Your task to perform on an android device: open device folders in google photos Image 0: 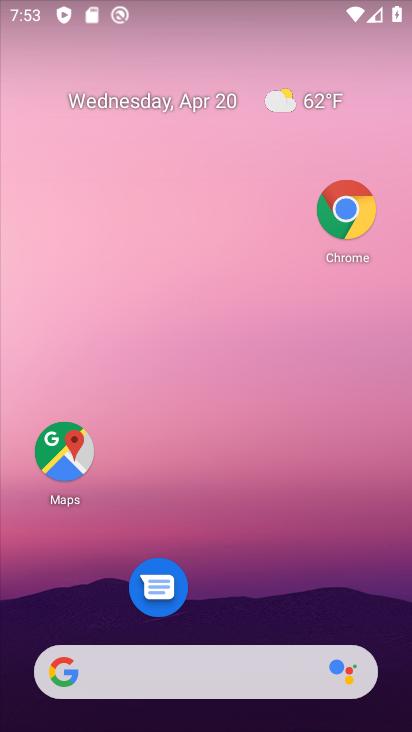
Step 0: drag from (253, 625) to (116, 98)
Your task to perform on an android device: open device folders in google photos Image 1: 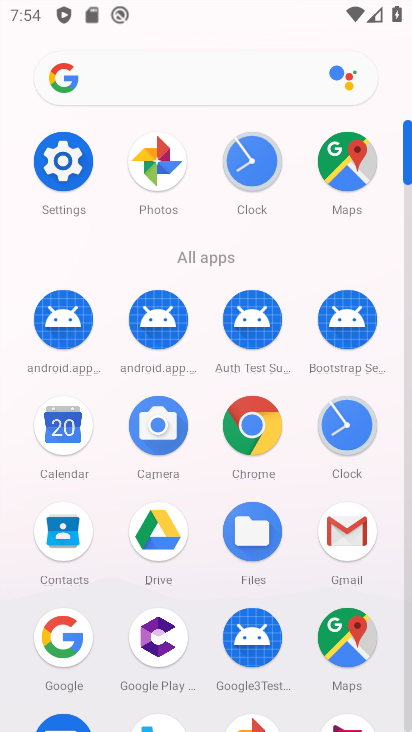
Step 1: click (177, 148)
Your task to perform on an android device: open device folders in google photos Image 2: 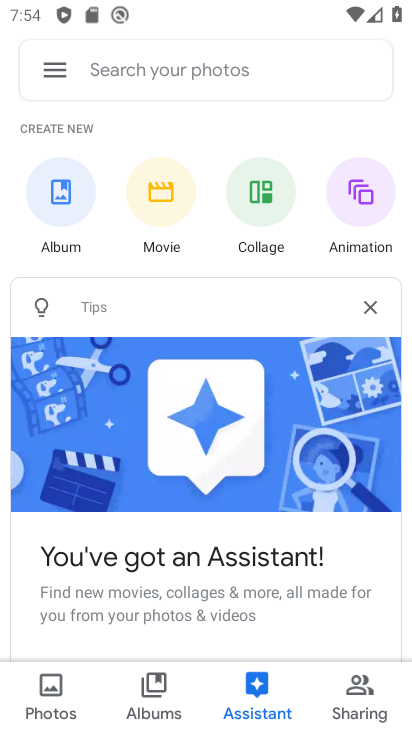
Step 2: click (57, 61)
Your task to perform on an android device: open device folders in google photos Image 3: 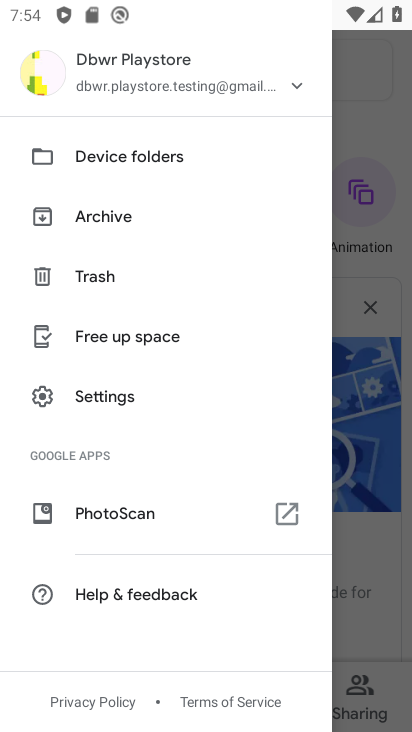
Step 3: click (133, 162)
Your task to perform on an android device: open device folders in google photos Image 4: 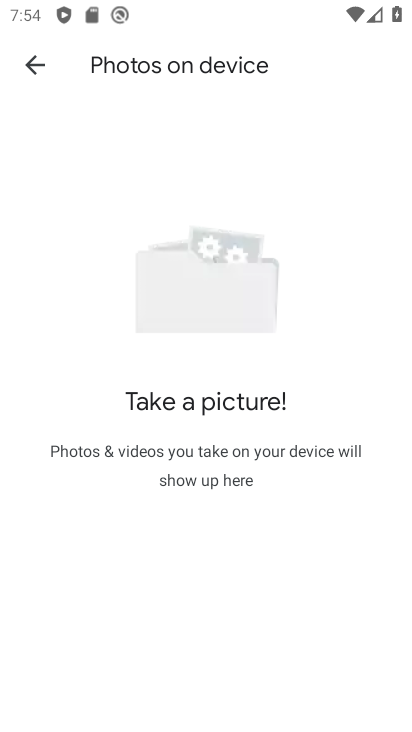
Step 4: task complete